Your task to perform on an android device: set the stopwatch Image 0: 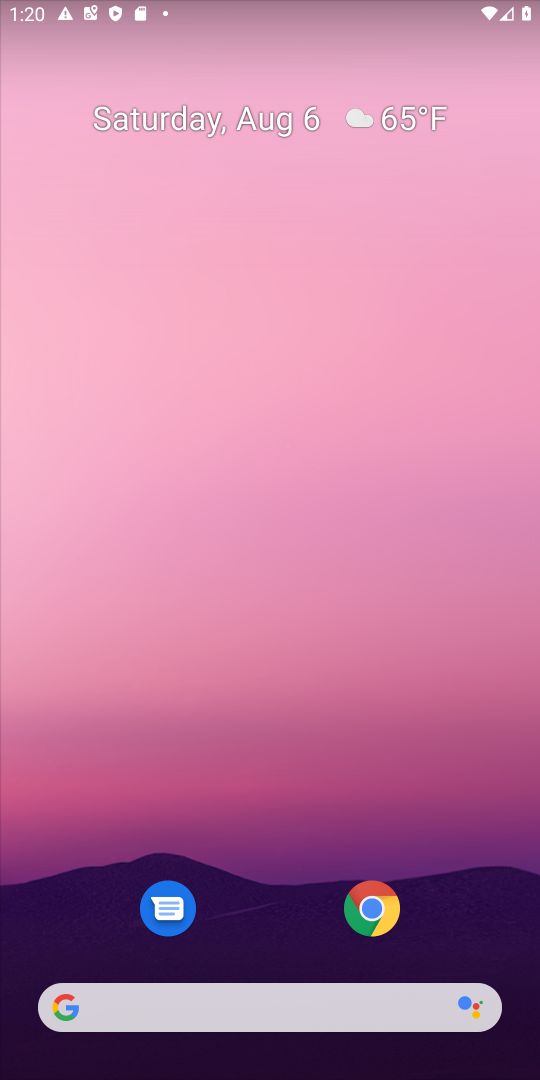
Step 0: drag from (240, 868) to (229, 256)
Your task to perform on an android device: set the stopwatch Image 1: 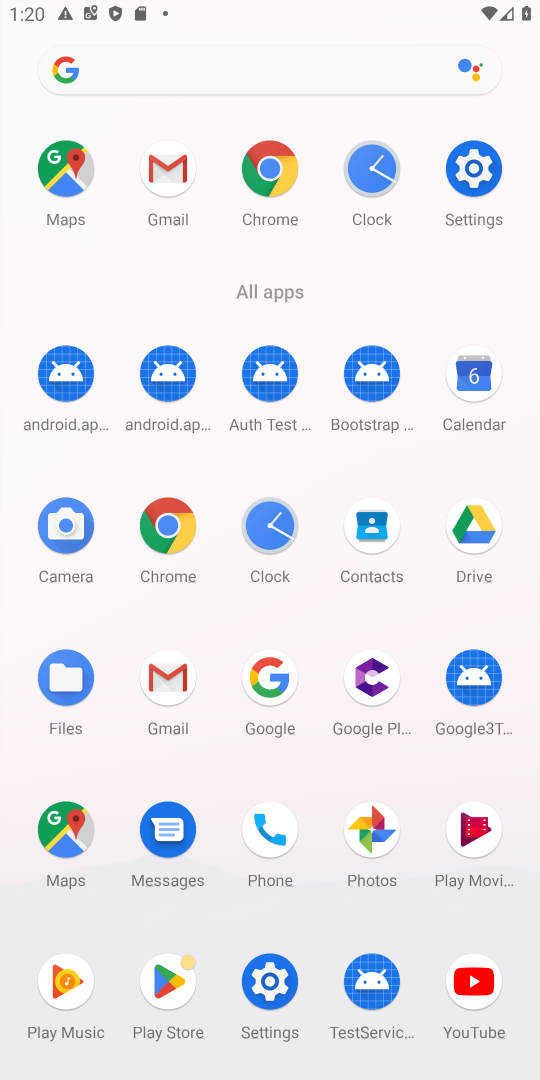
Step 1: click (373, 172)
Your task to perform on an android device: set the stopwatch Image 2: 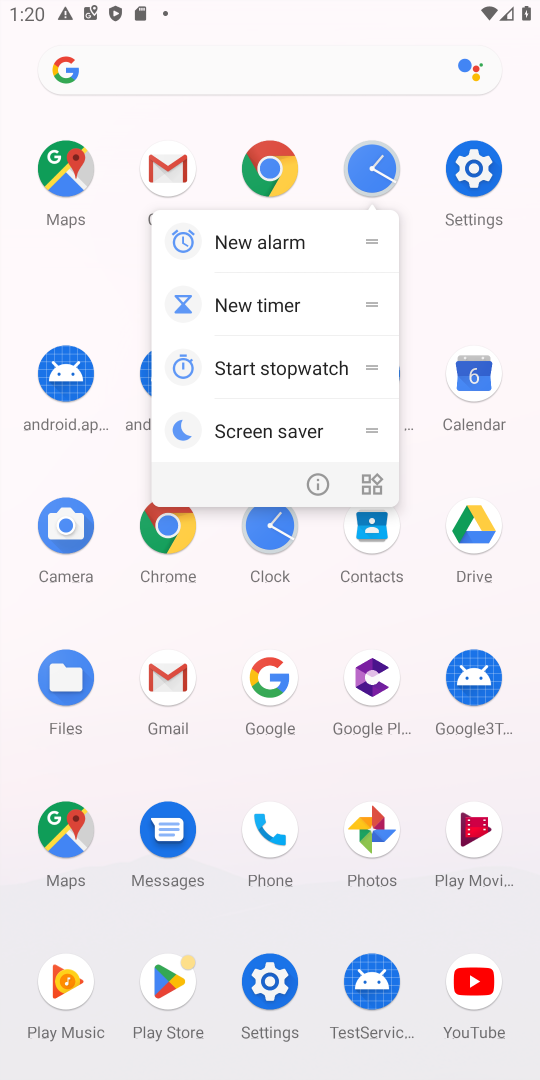
Step 2: click (373, 165)
Your task to perform on an android device: set the stopwatch Image 3: 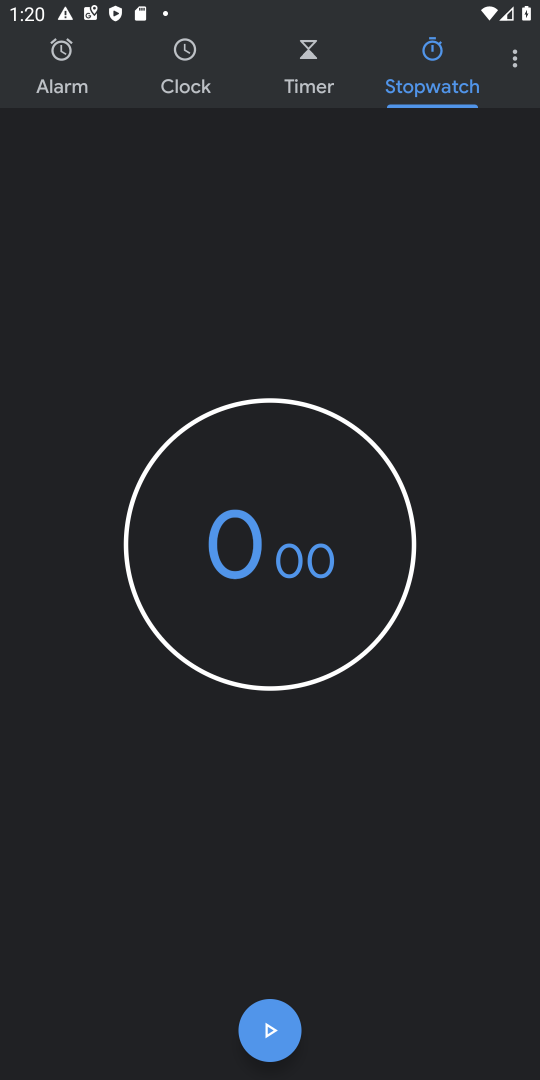
Step 3: click (265, 1046)
Your task to perform on an android device: set the stopwatch Image 4: 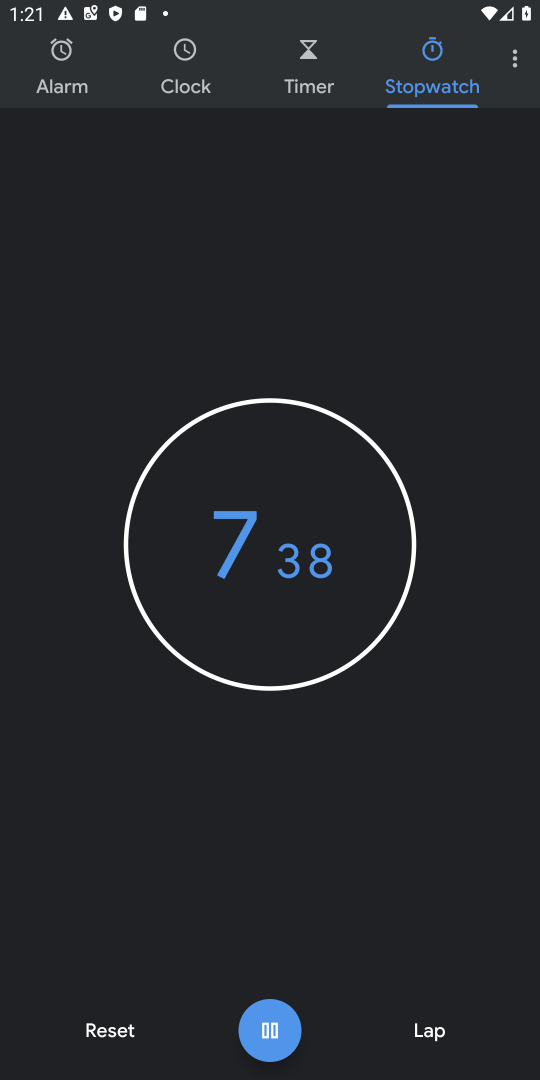
Step 4: task complete